Your task to perform on an android device: turn off data saver in the chrome app Image 0: 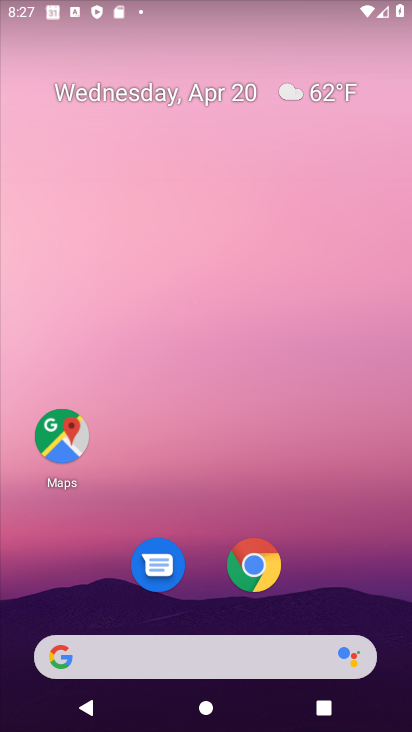
Step 0: drag from (331, 505) to (304, 66)
Your task to perform on an android device: turn off data saver in the chrome app Image 1: 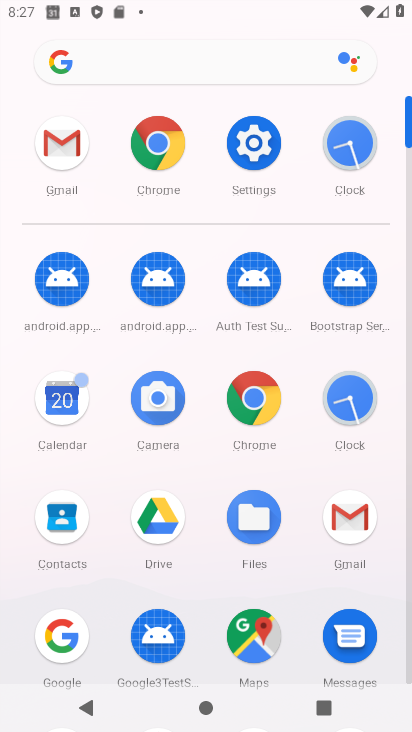
Step 1: click (163, 156)
Your task to perform on an android device: turn off data saver in the chrome app Image 2: 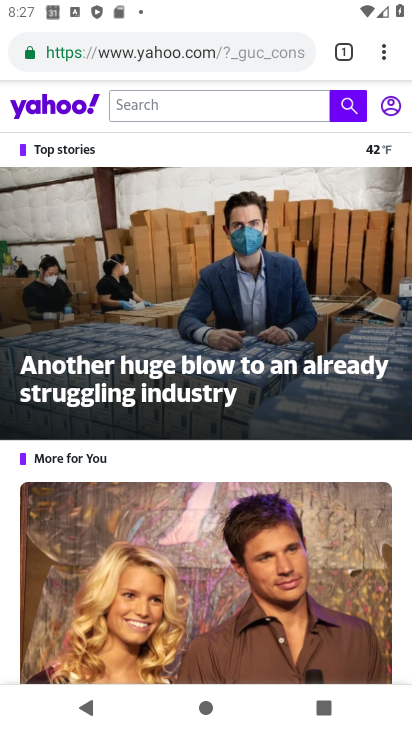
Step 2: drag from (381, 43) to (210, 632)
Your task to perform on an android device: turn off data saver in the chrome app Image 3: 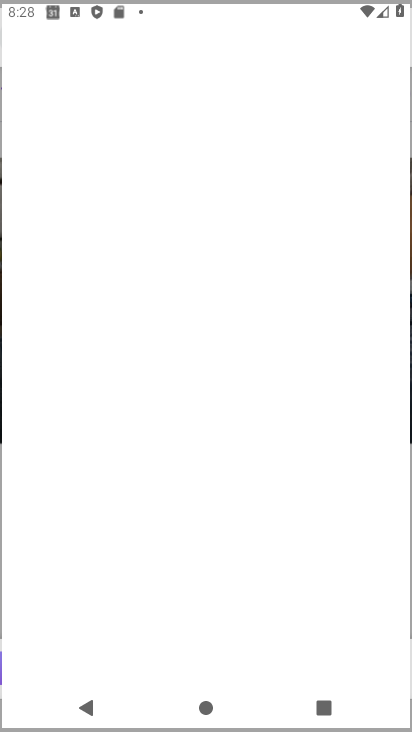
Step 3: click (384, 44)
Your task to perform on an android device: turn off data saver in the chrome app Image 4: 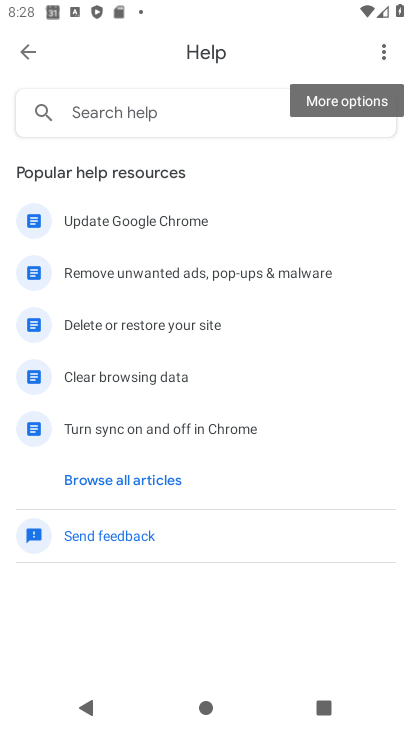
Step 4: click (33, 43)
Your task to perform on an android device: turn off data saver in the chrome app Image 5: 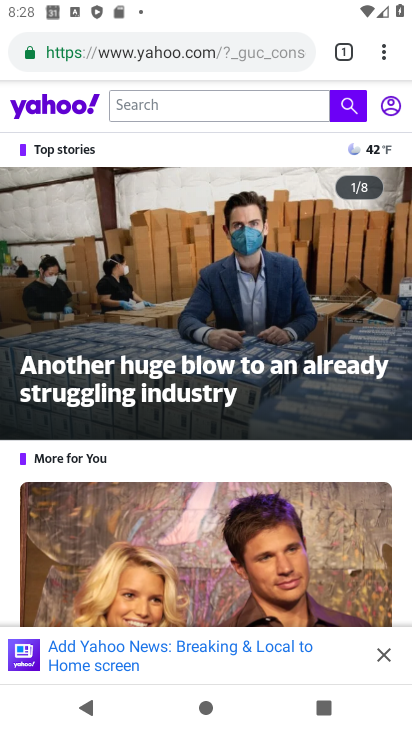
Step 5: drag from (384, 53) to (211, 610)
Your task to perform on an android device: turn off data saver in the chrome app Image 6: 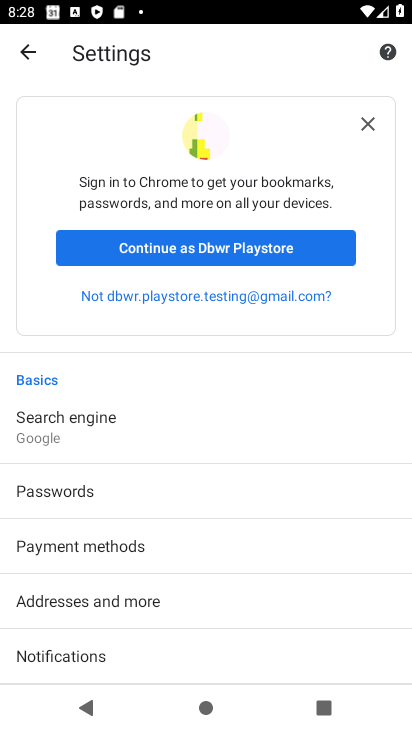
Step 6: drag from (192, 625) to (136, 302)
Your task to perform on an android device: turn off data saver in the chrome app Image 7: 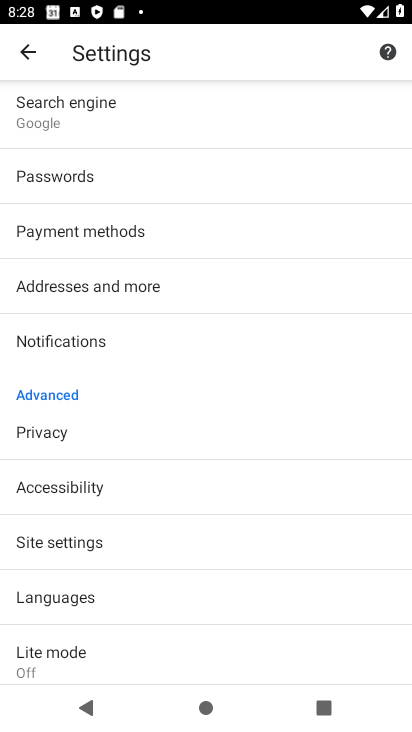
Step 7: click (79, 661)
Your task to perform on an android device: turn off data saver in the chrome app Image 8: 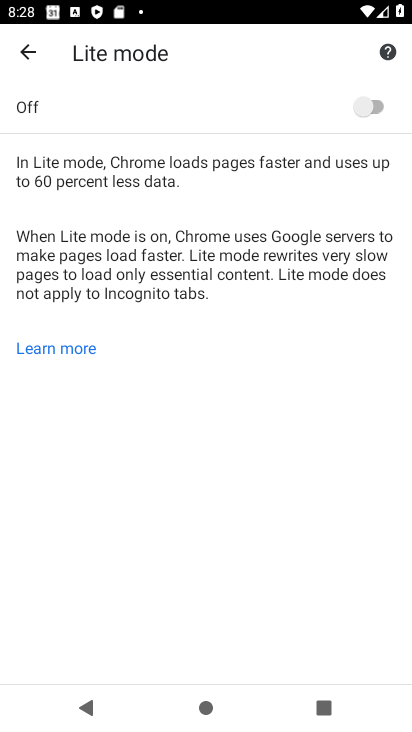
Step 8: click (368, 112)
Your task to perform on an android device: turn off data saver in the chrome app Image 9: 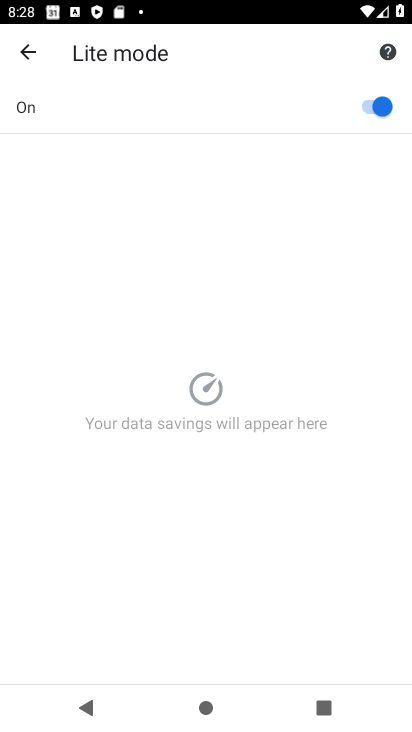
Step 9: task complete